Your task to perform on an android device: snooze an email in the gmail app Image 0: 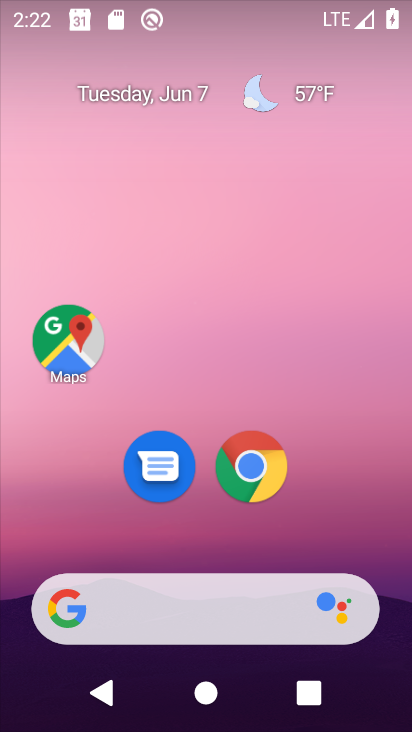
Step 0: drag from (180, 551) to (271, 30)
Your task to perform on an android device: snooze an email in the gmail app Image 1: 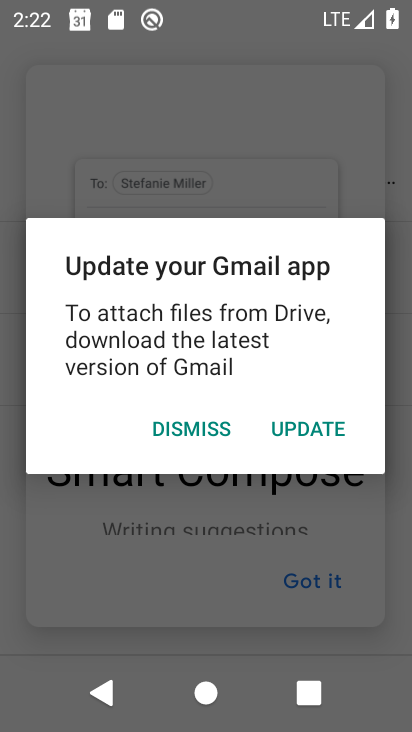
Step 1: click (159, 185)
Your task to perform on an android device: snooze an email in the gmail app Image 2: 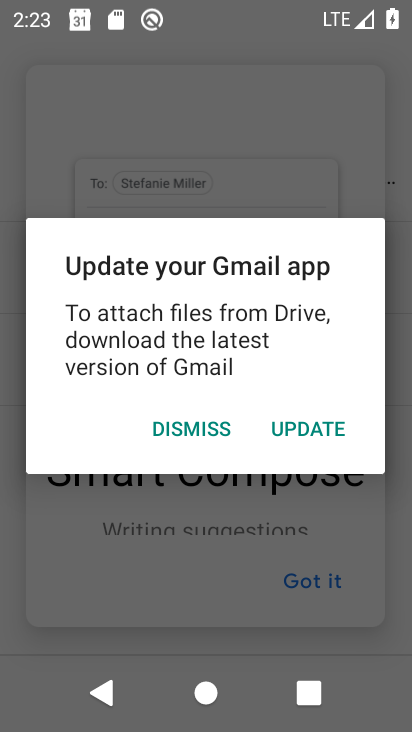
Step 2: click (207, 432)
Your task to perform on an android device: snooze an email in the gmail app Image 3: 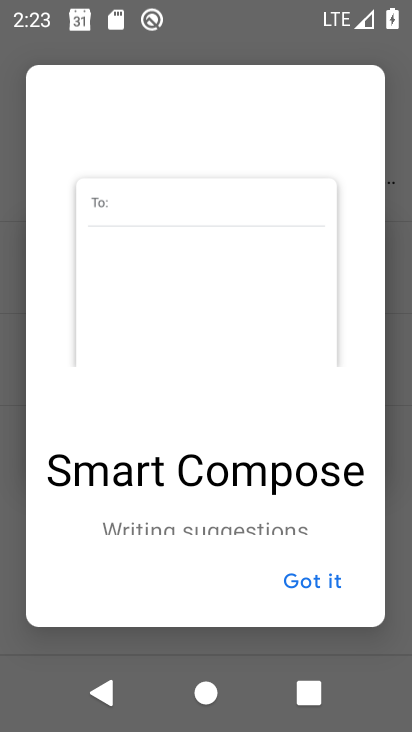
Step 3: click (287, 581)
Your task to perform on an android device: snooze an email in the gmail app Image 4: 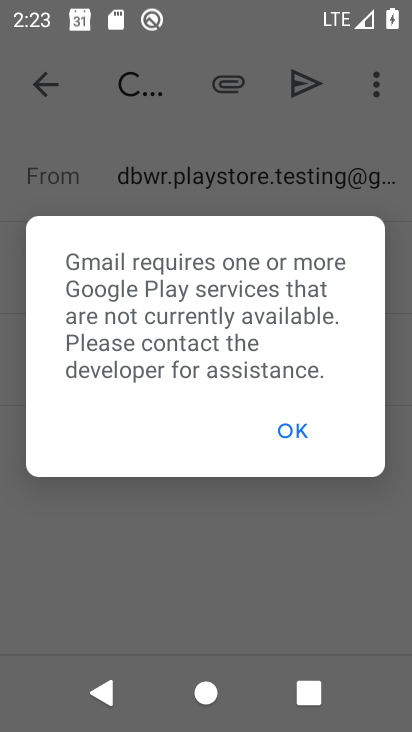
Step 4: click (302, 412)
Your task to perform on an android device: snooze an email in the gmail app Image 5: 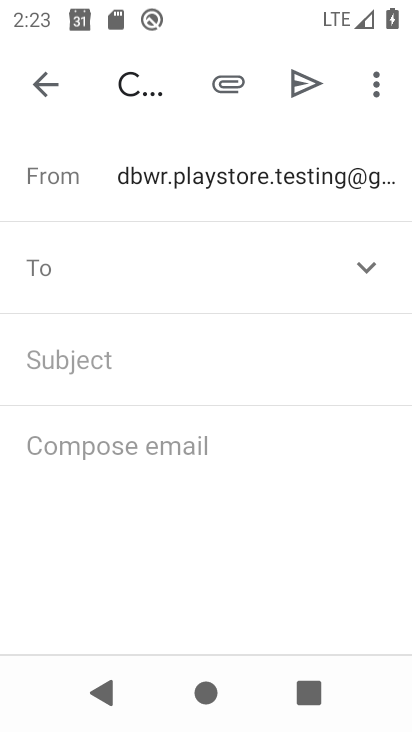
Step 5: click (37, 82)
Your task to perform on an android device: snooze an email in the gmail app Image 6: 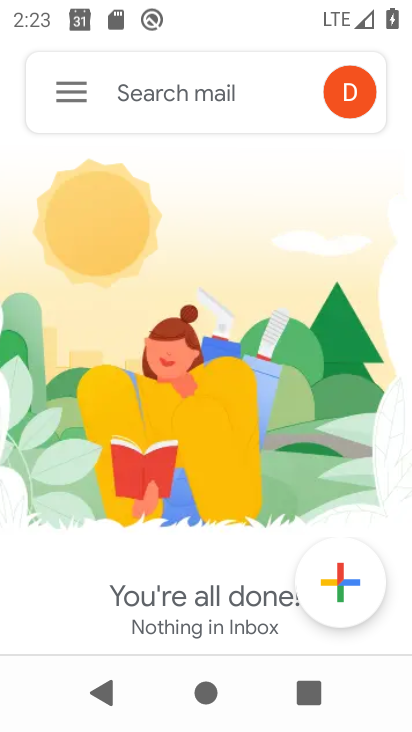
Step 6: click (60, 93)
Your task to perform on an android device: snooze an email in the gmail app Image 7: 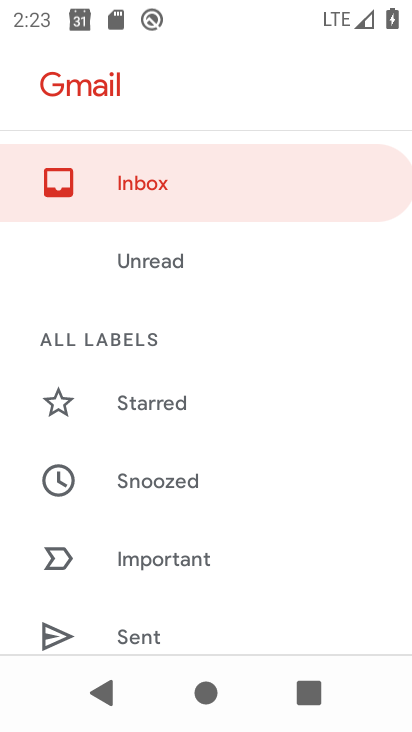
Step 7: drag from (133, 595) to (233, 160)
Your task to perform on an android device: snooze an email in the gmail app Image 8: 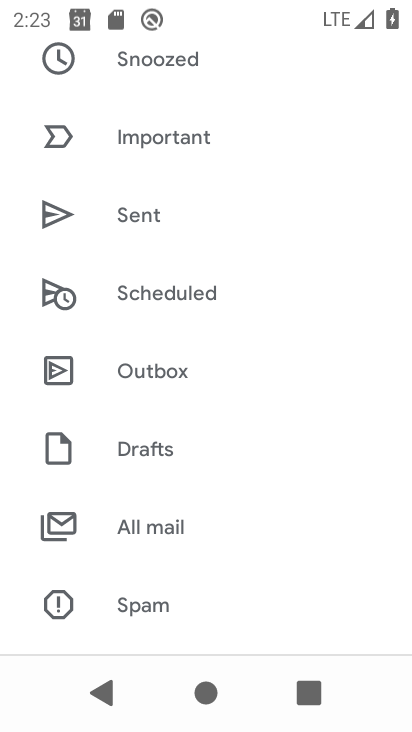
Step 8: click (153, 528)
Your task to perform on an android device: snooze an email in the gmail app Image 9: 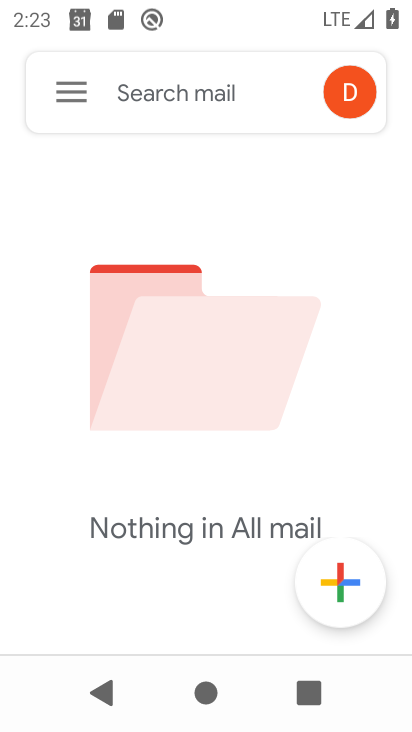
Step 9: task complete